Your task to perform on an android device: empty trash in the gmail app Image 0: 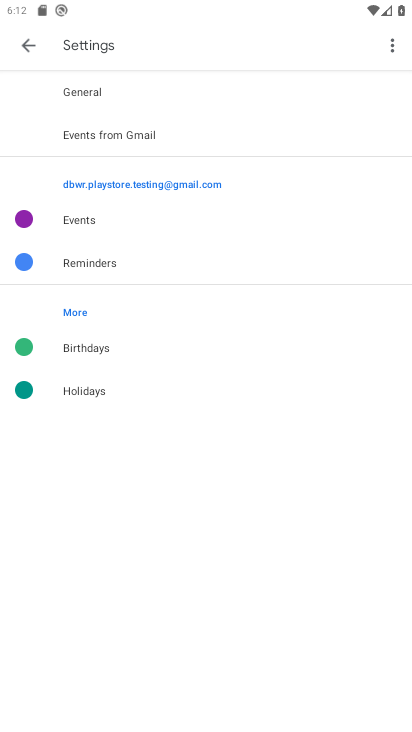
Step 0: press home button
Your task to perform on an android device: empty trash in the gmail app Image 1: 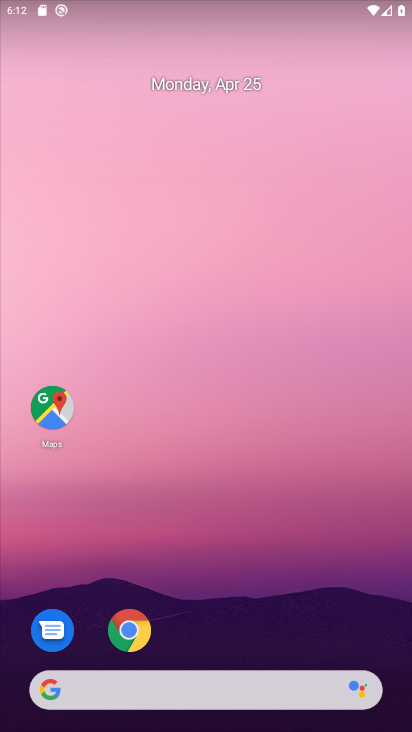
Step 1: drag from (223, 605) to (167, 53)
Your task to perform on an android device: empty trash in the gmail app Image 2: 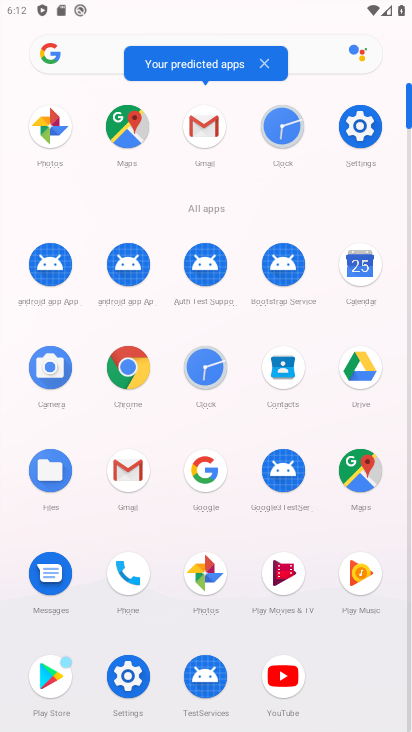
Step 2: click (133, 466)
Your task to perform on an android device: empty trash in the gmail app Image 3: 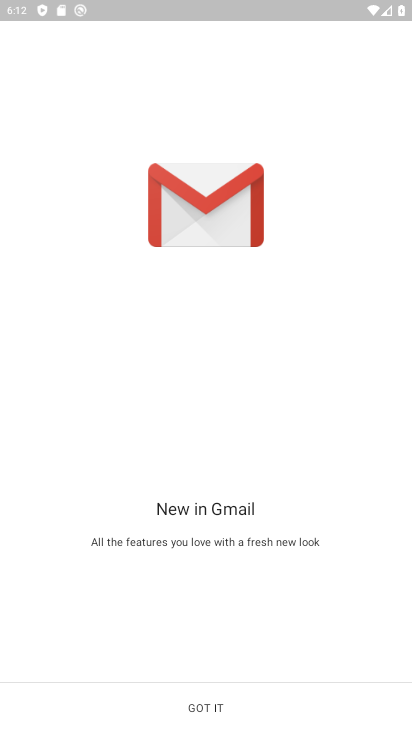
Step 3: click (212, 707)
Your task to perform on an android device: empty trash in the gmail app Image 4: 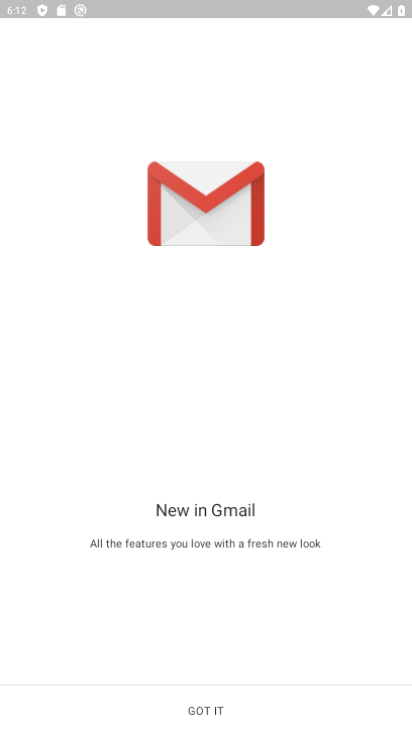
Step 4: click (212, 707)
Your task to perform on an android device: empty trash in the gmail app Image 5: 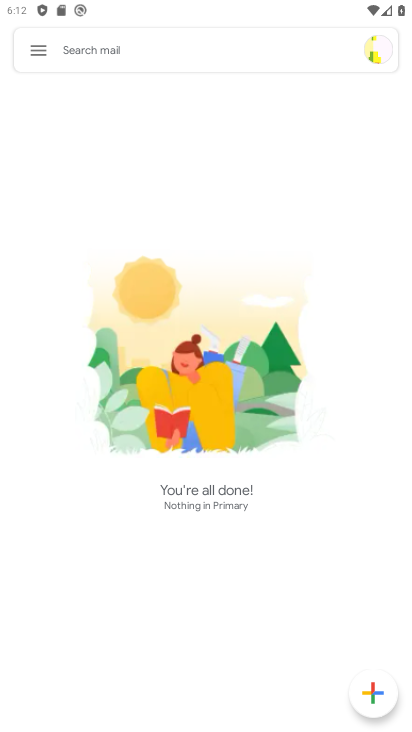
Step 5: click (38, 51)
Your task to perform on an android device: empty trash in the gmail app Image 6: 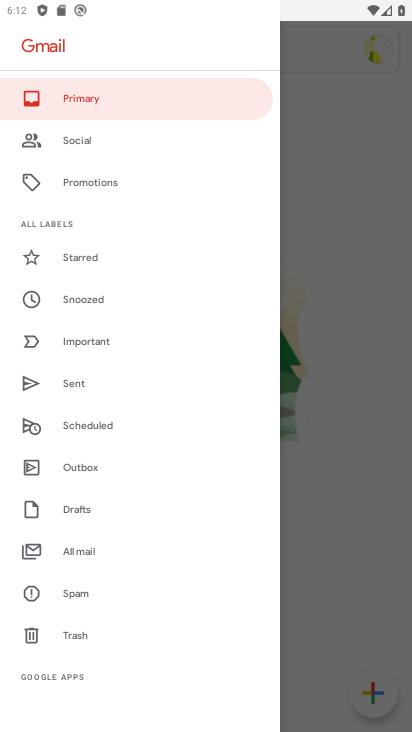
Step 6: click (78, 636)
Your task to perform on an android device: empty trash in the gmail app Image 7: 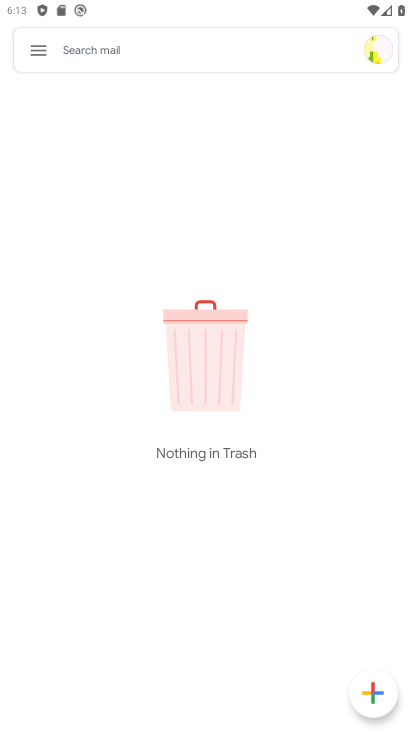
Step 7: task complete